Your task to perform on an android device: Go to ESPN.com Image 0: 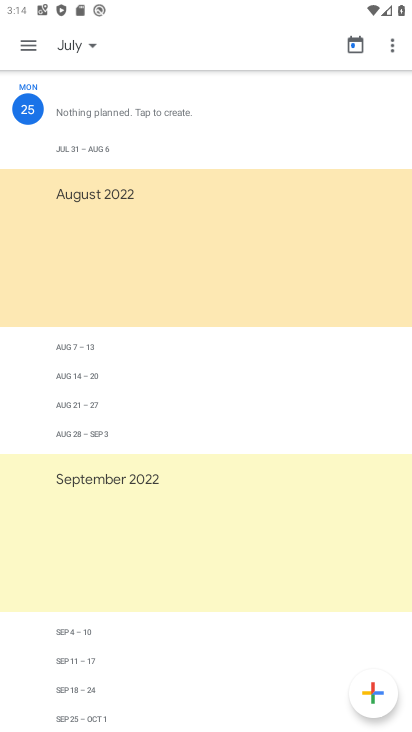
Step 0: press home button
Your task to perform on an android device: Go to ESPN.com Image 1: 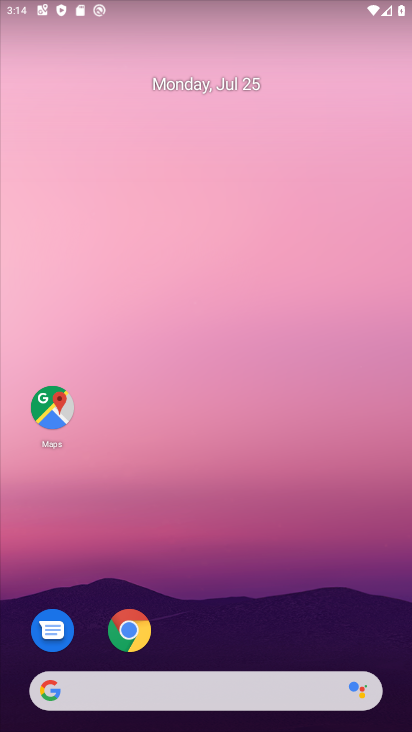
Step 1: click (134, 650)
Your task to perform on an android device: Go to ESPN.com Image 2: 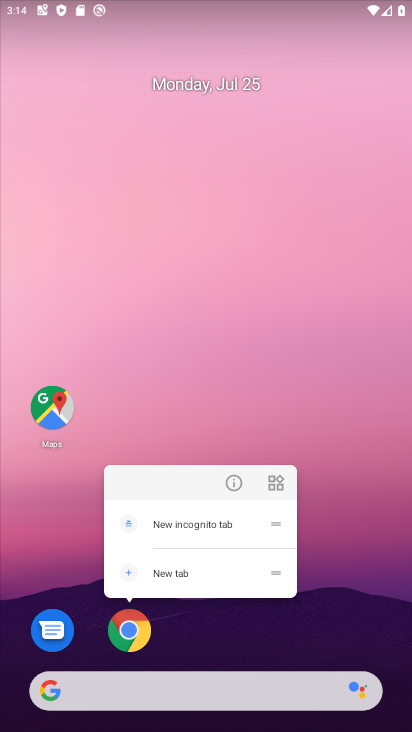
Step 2: click (113, 642)
Your task to perform on an android device: Go to ESPN.com Image 3: 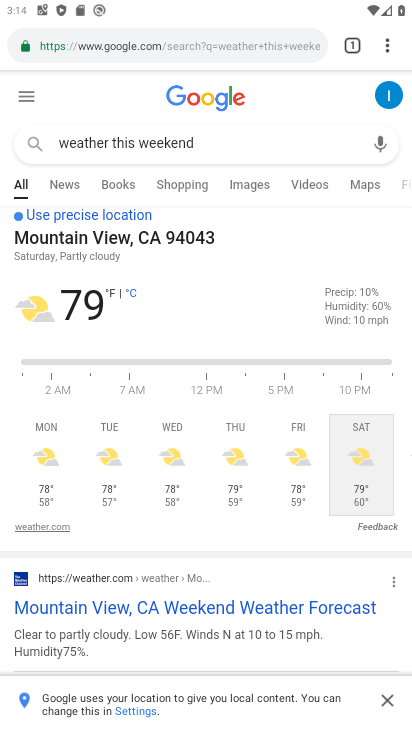
Step 3: click (214, 37)
Your task to perform on an android device: Go to ESPN.com Image 4: 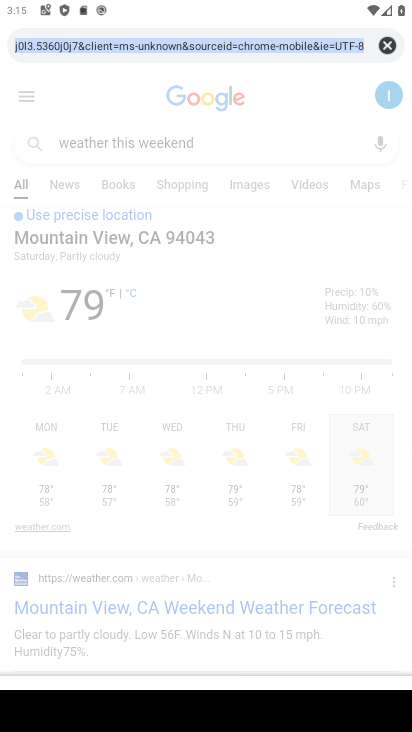
Step 4: type "espn.com"
Your task to perform on an android device: Go to ESPN.com Image 5: 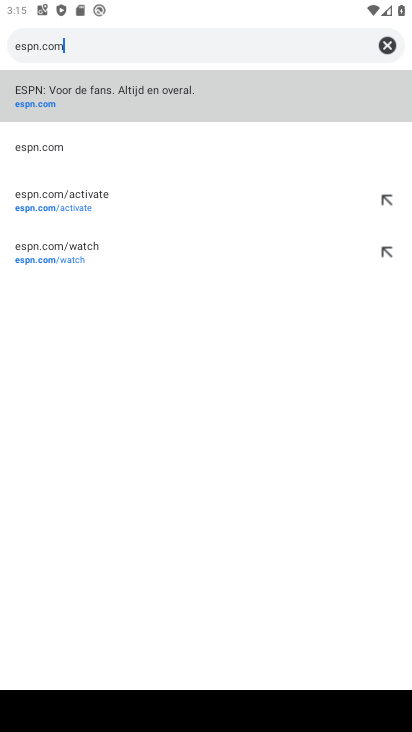
Step 5: click (199, 131)
Your task to perform on an android device: Go to ESPN.com Image 6: 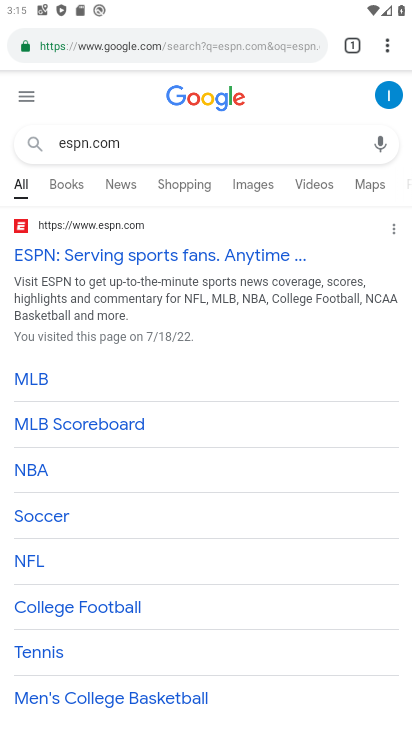
Step 6: click (193, 257)
Your task to perform on an android device: Go to ESPN.com Image 7: 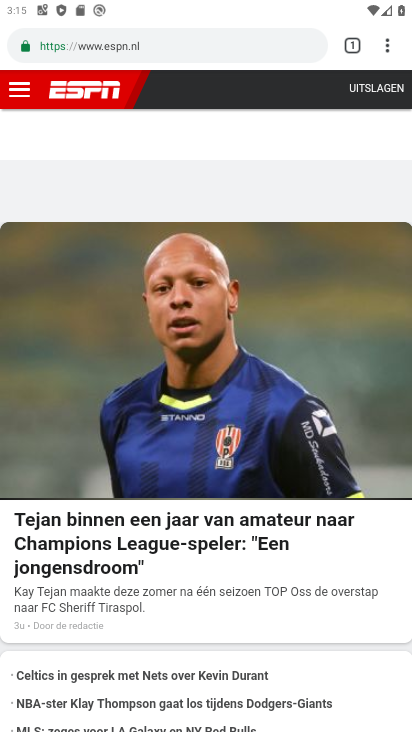
Step 7: task complete